Your task to perform on an android device: turn off sleep mode Image 0: 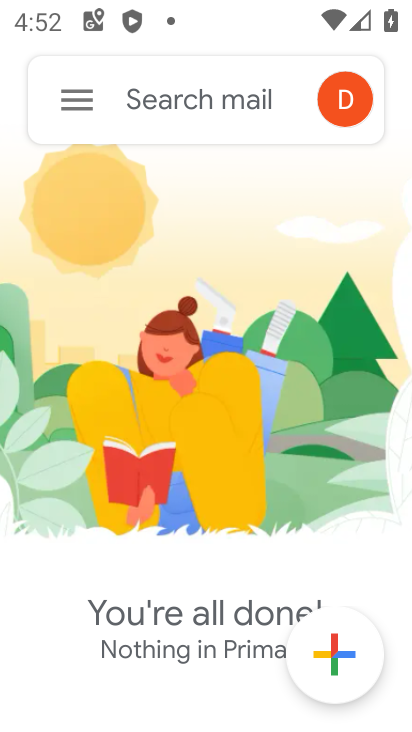
Step 0: click (84, 99)
Your task to perform on an android device: turn off sleep mode Image 1: 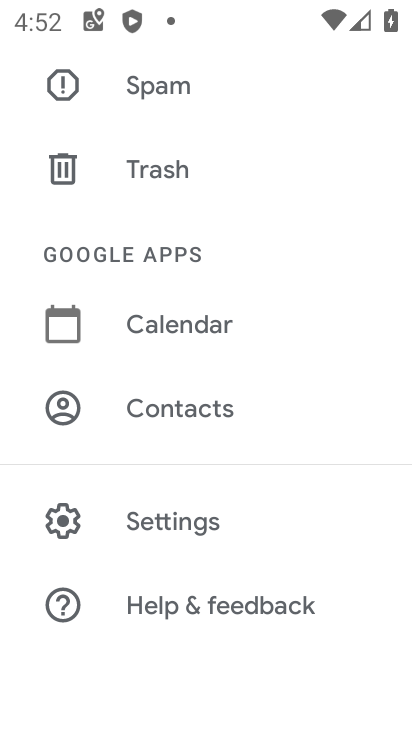
Step 1: press back button
Your task to perform on an android device: turn off sleep mode Image 2: 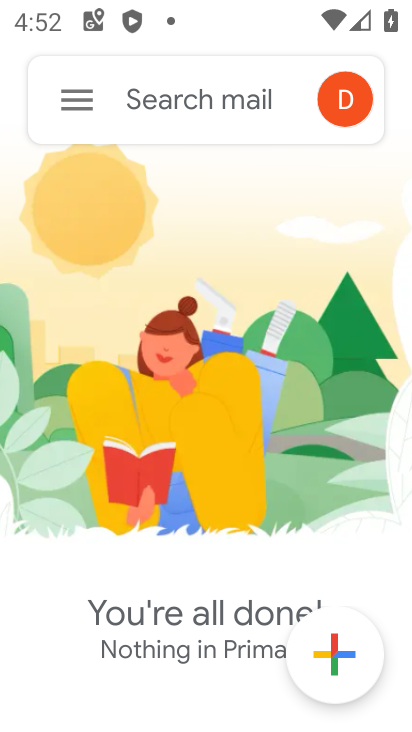
Step 2: press home button
Your task to perform on an android device: turn off sleep mode Image 3: 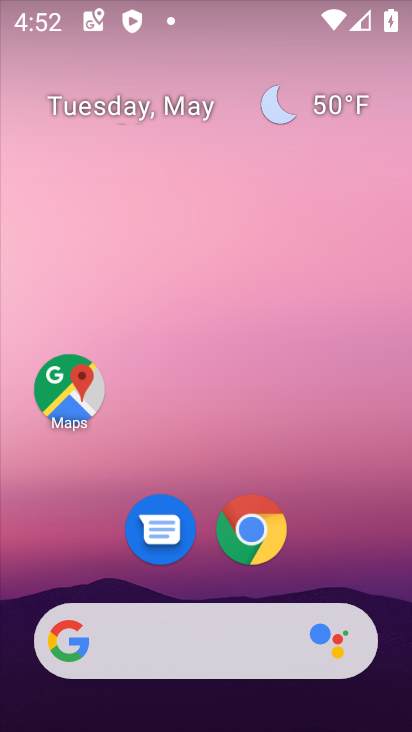
Step 3: drag from (337, 484) to (249, 33)
Your task to perform on an android device: turn off sleep mode Image 4: 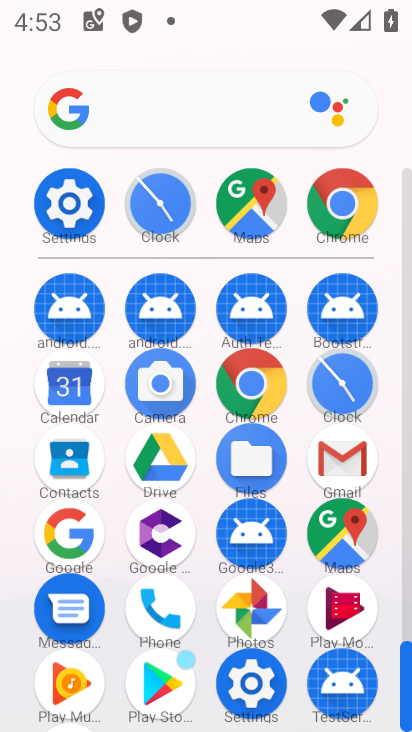
Step 4: click (66, 202)
Your task to perform on an android device: turn off sleep mode Image 5: 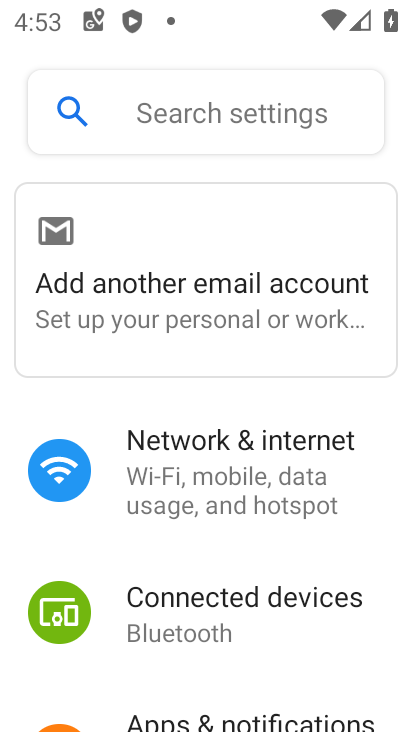
Step 5: drag from (279, 607) to (265, 176)
Your task to perform on an android device: turn off sleep mode Image 6: 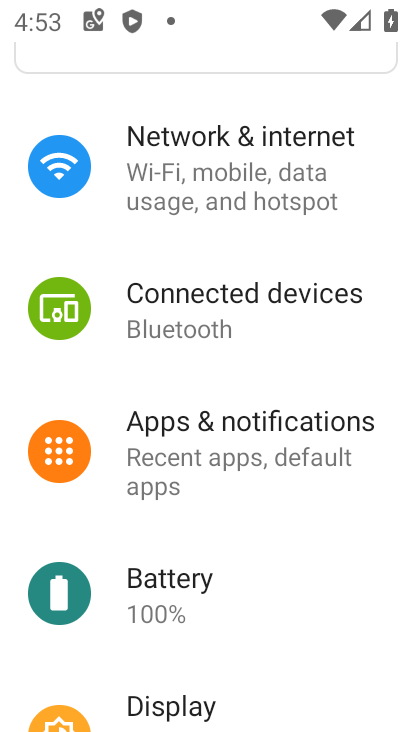
Step 6: drag from (220, 633) to (282, 313)
Your task to perform on an android device: turn off sleep mode Image 7: 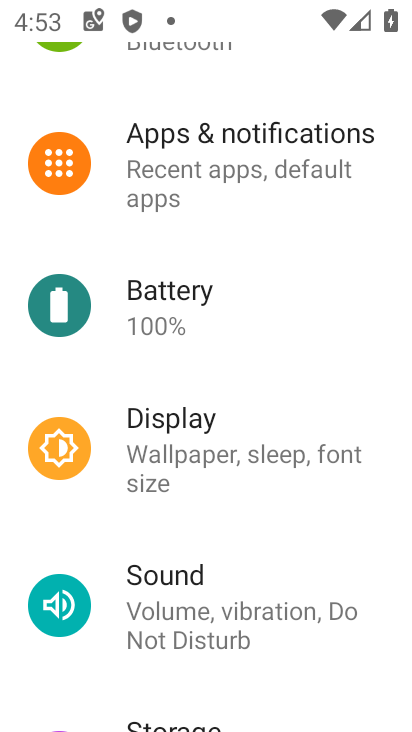
Step 7: click (183, 443)
Your task to perform on an android device: turn off sleep mode Image 8: 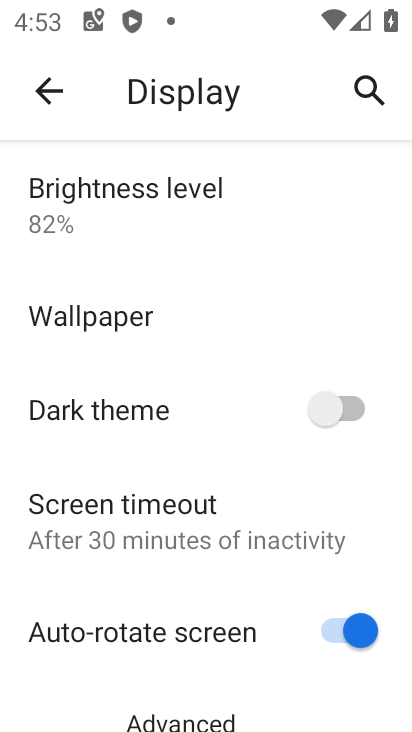
Step 8: drag from (193, 567) to (224, 258)
Your task to perform on an android device: turn off sleep mode Image 9: 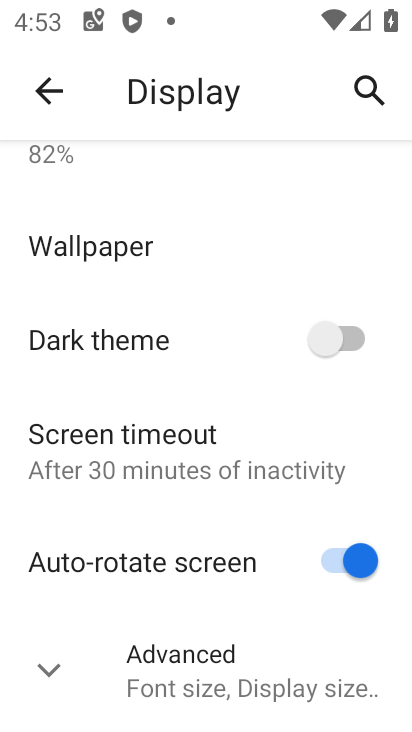
Step 9: click (69, 654)
Your task to perform on an android device: turn off sleep mode Image 10: 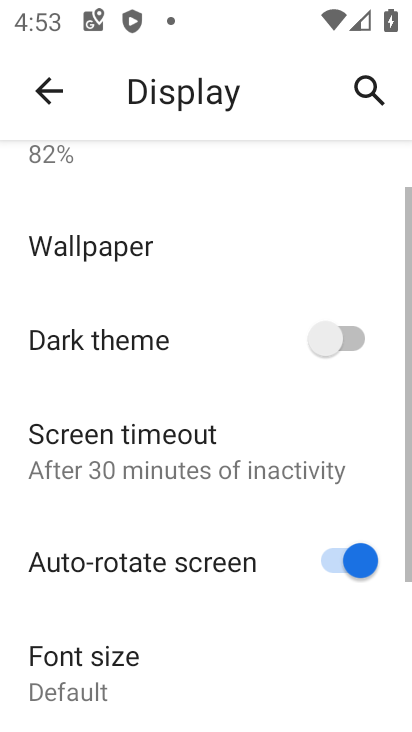
Step 10: task complete